Your task to perform on an android device: Open my contact list Image 0: 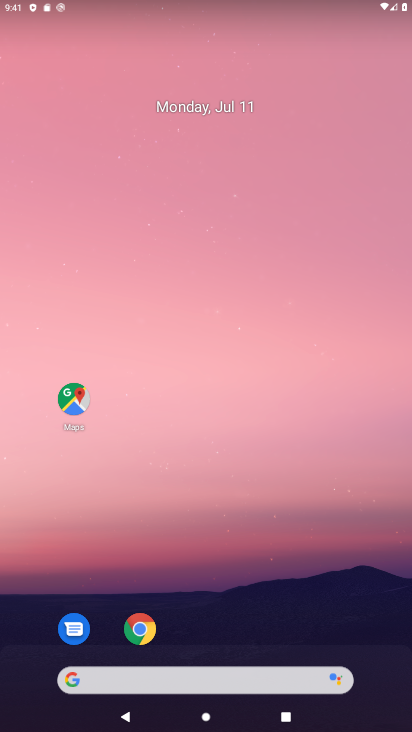
Step 0: drag from (320, 627) to (316, 31)
Your task to perform on an android device: Open my contact list Image 1: 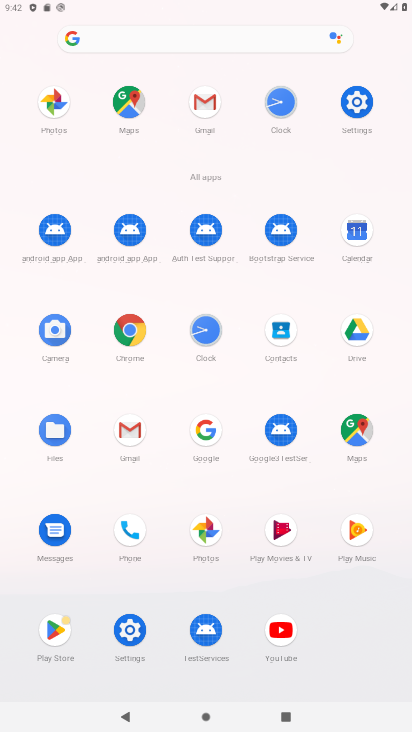
Step 1: click (289, 336)
Your task to perform on an android device: Open my contact list Image 2: 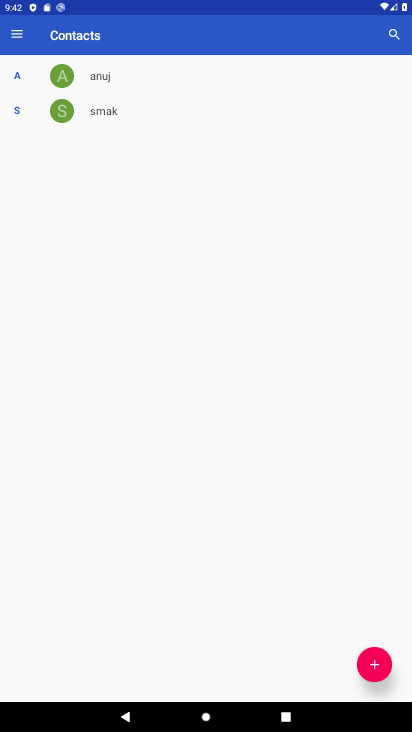
Step 2: task complete